Your task to perform on an android device: Go to display settings Image 0: 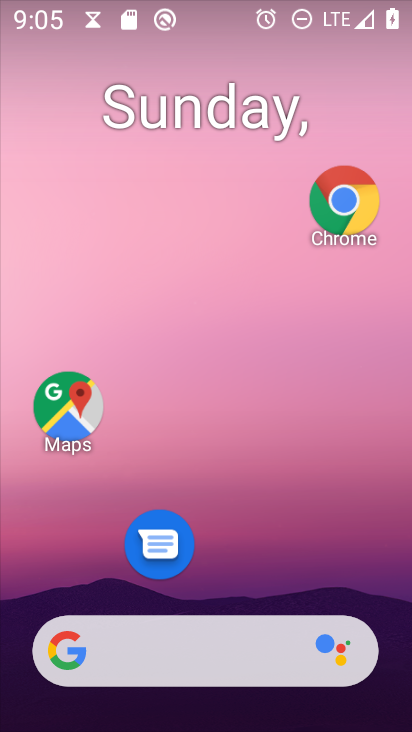
Step 0: drag from (263, 599) to (287, 51)
Your task to perform on an android device: Go to display settings Image 1: 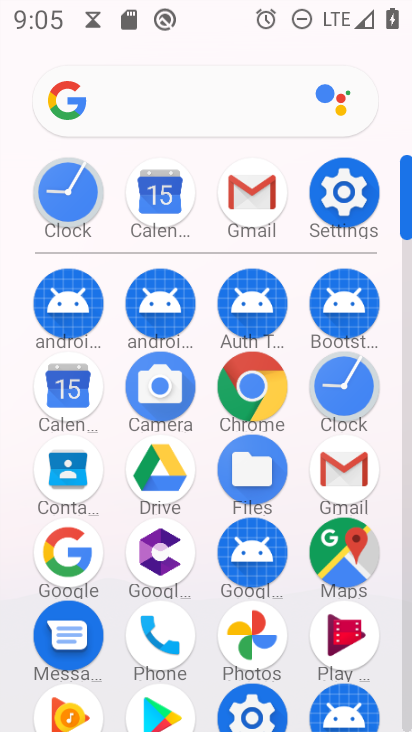
Step 1: click (338, 185)
Your task to perform on an android device: Go to display settings Image 2: 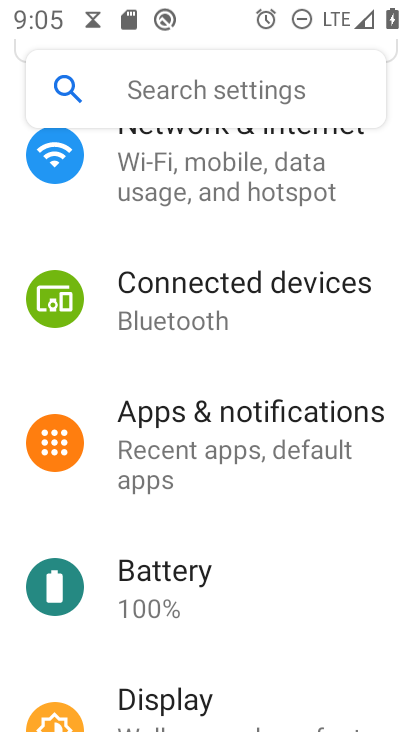
Step 2: click (157, 684)
Your task to perform on an android device: Go to display settings Image 3: 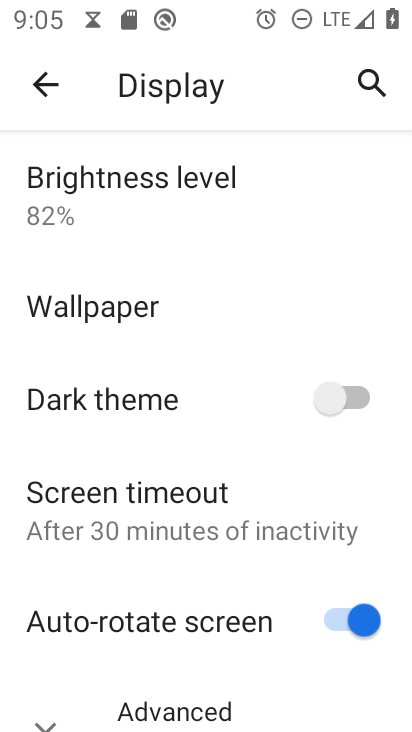
Step 3: task complete